Your task to perform on an android device: toggle javascript in the chrome app Image 0: 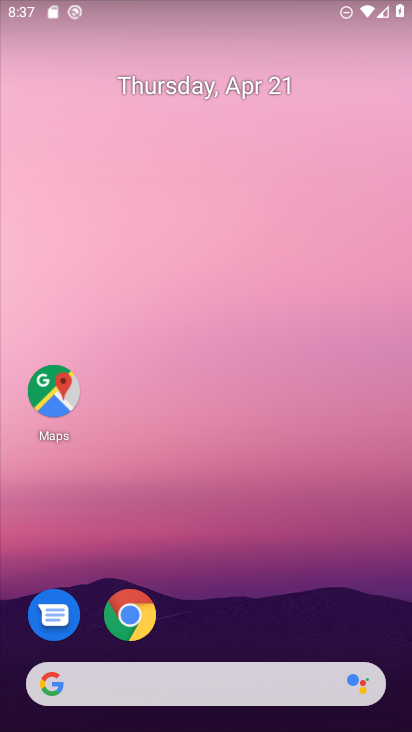
Step 0: drag from (324, 591) to (322, 59)
Your task to perform on an android device: toggle javascript in the chrome app Image 1: 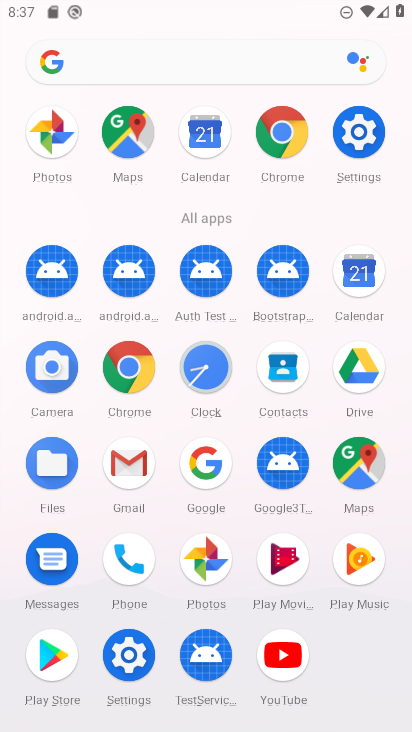
Step 1: click (273, 142)
Your task to perform on an android device: toggle javascript in the chrome app Image 2: 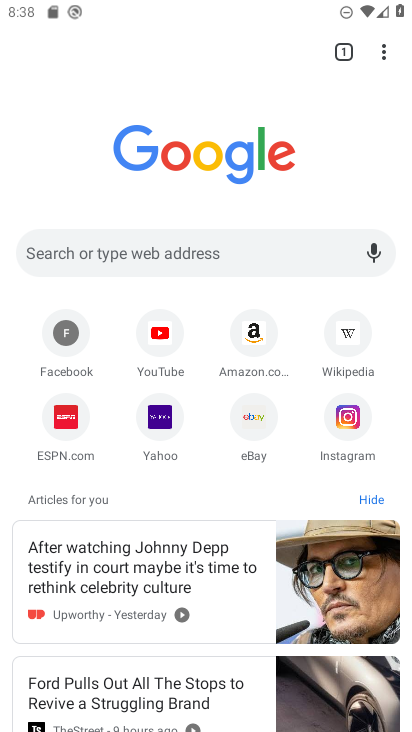
Step 2: drag from (391, 49) to (264, 423)
Your task to perform on an android device: toggle javascript in the chrome app Image 3: 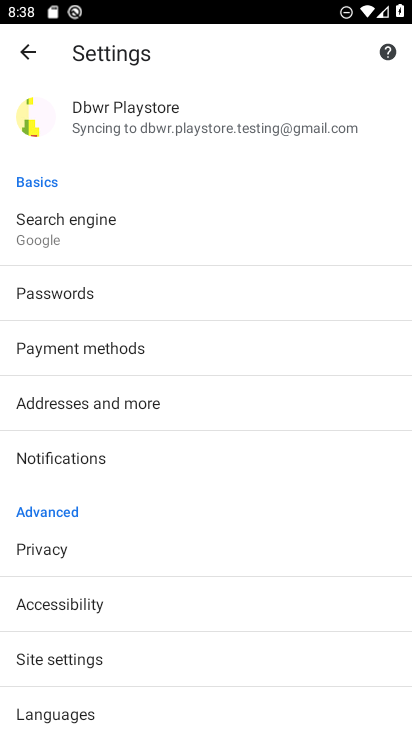
Step 3: drag from (112, 622) to (150, 277)
Your task to perform on an android device: toggle javascript in the chrome app Image 4: 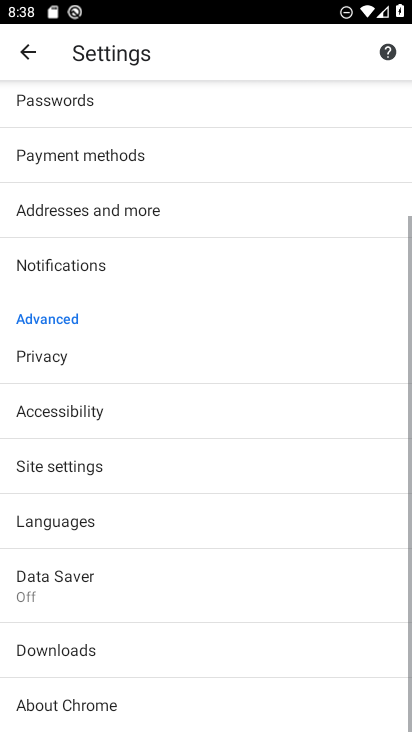
Step 4: click (41, 465)
Your task to perform on an android device: toggle javascript in the chrome app Image 5: 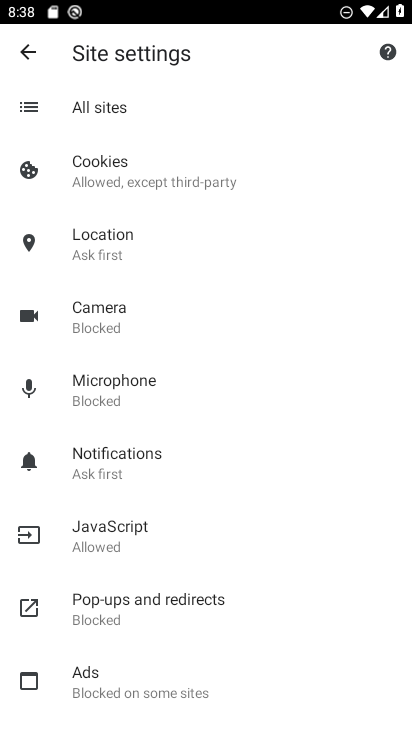
Step 5: click (87, 532)
Your task to perform on an android device: toggle javascript in the chrome app Image 6: 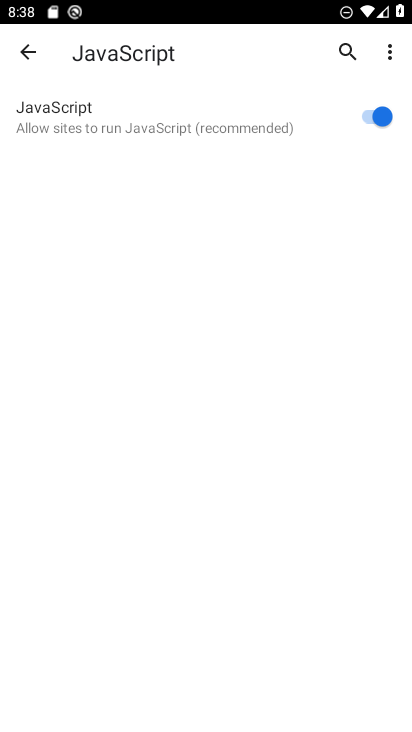
Step 6: click (373, 119)
Your task to perform on an android device: toggle javascript in the chrome app Image 7: 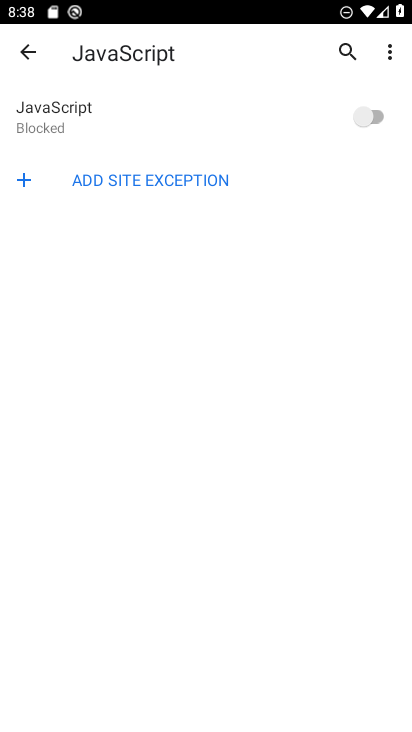
Step 7: task complete